Your task to perform on an android device: turn off improve location accuracy Image 0: 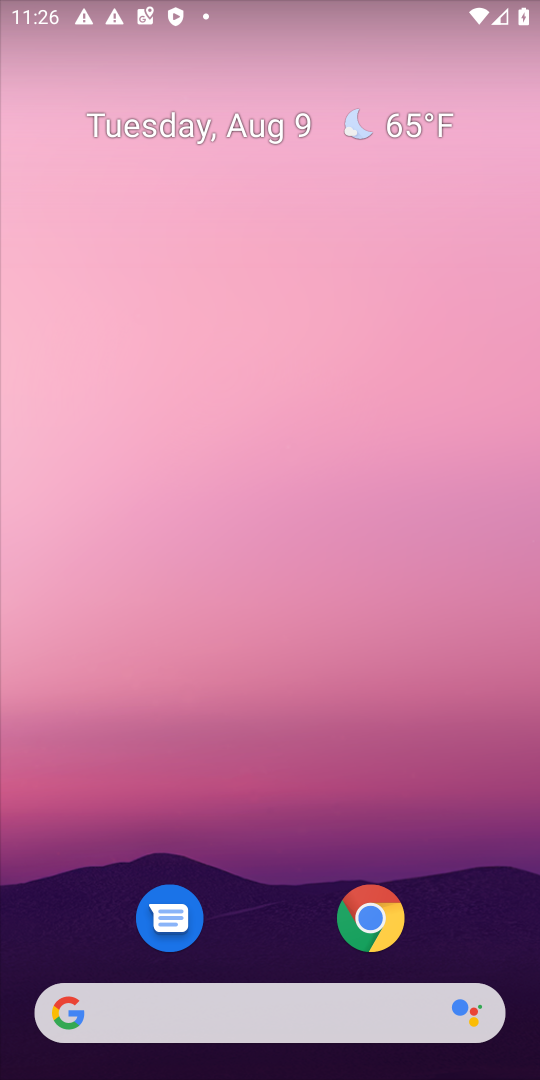
Step 0: drag from (248, 884) to (290, 110)
Your task to perform on an android device: turn off improve location accuracy Image 1: 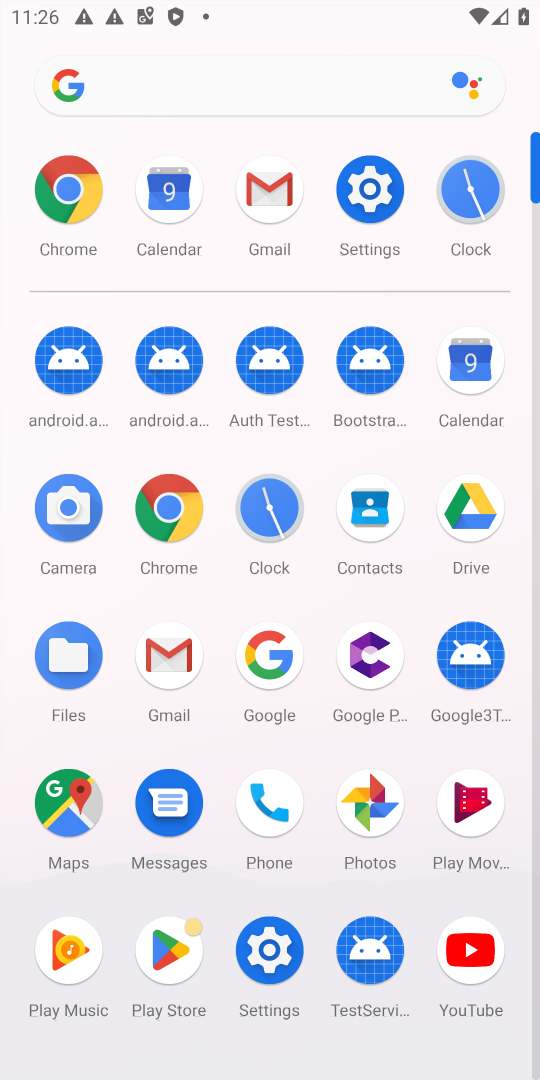
Step 1: click (278, 943)
Your task to perform on an android device: turn off improve location accuracy Image 2: 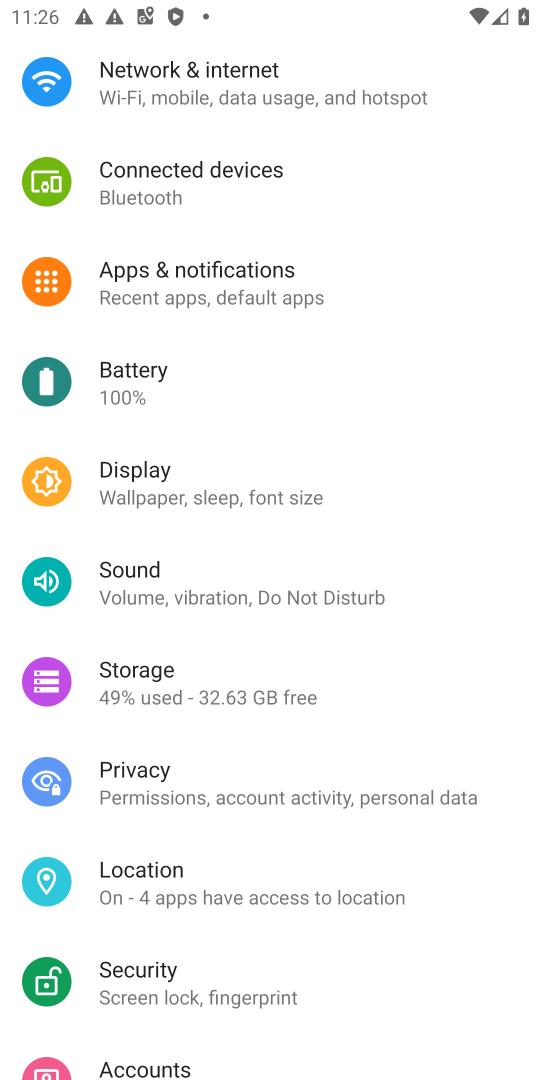
Step 2: click (191, 891)
Your task to perform on an android device: turn off improve location accuracy Image 3: 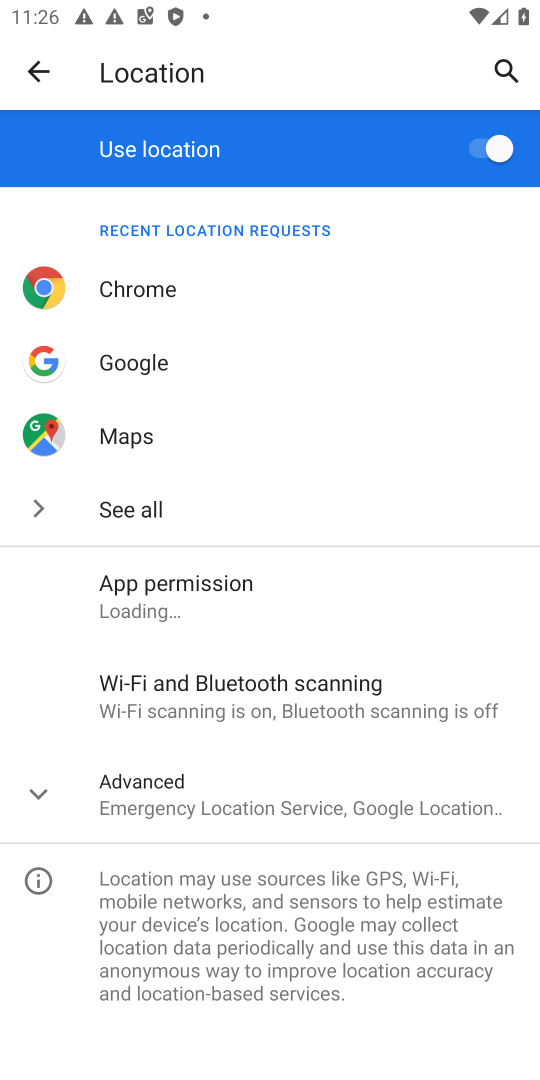
Step 3: click (188, 796)
Your task to perform on an android device: turn off improve location accuracy Image 4: 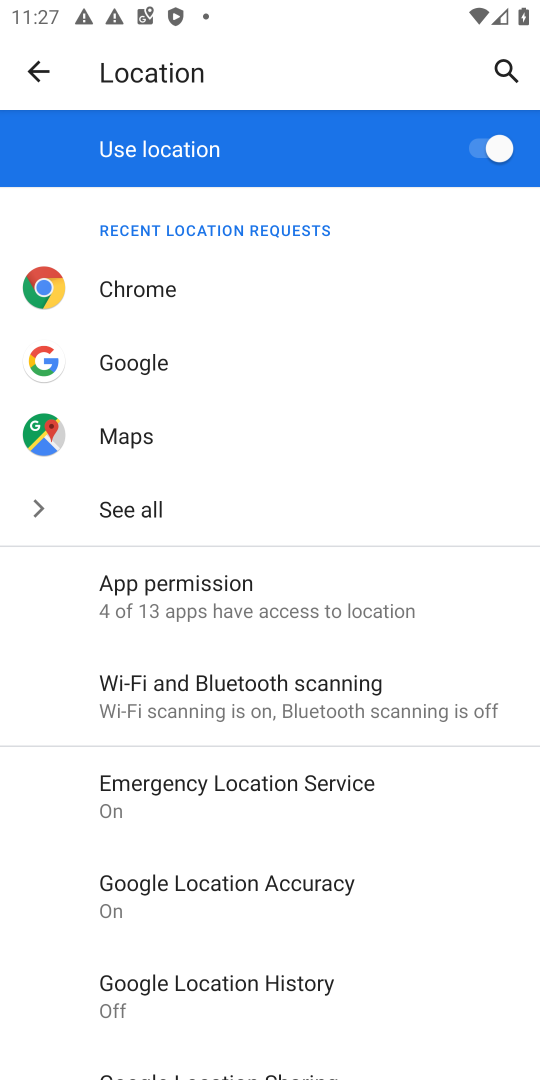
Step 4: click (304, 900)
Your task to perform on an android device: turn off improve location accuracy Image 5: 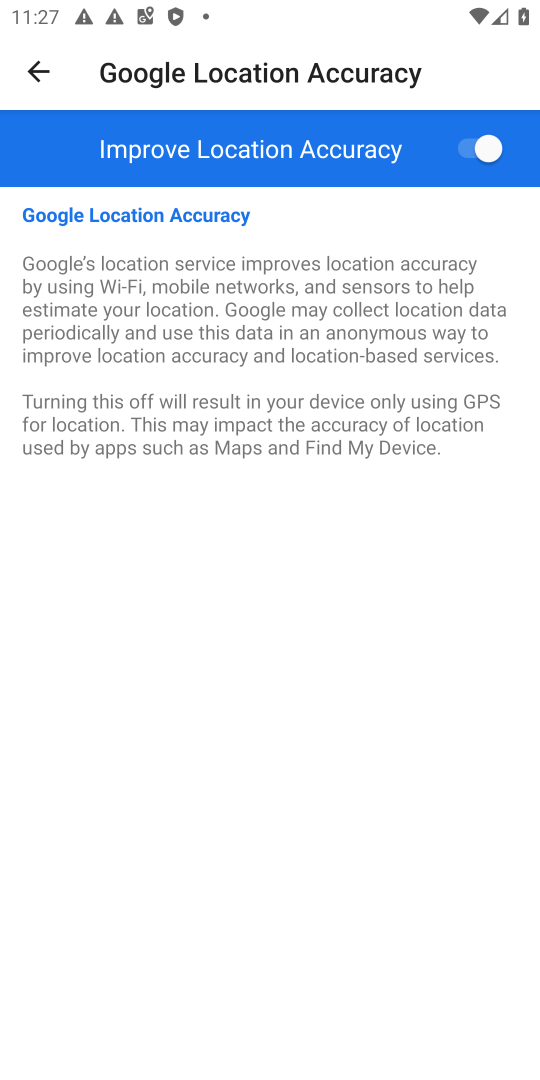
Step 5: click (462, 143)
Your task to perform on an android device: turn off improve location accuracy Image 6: 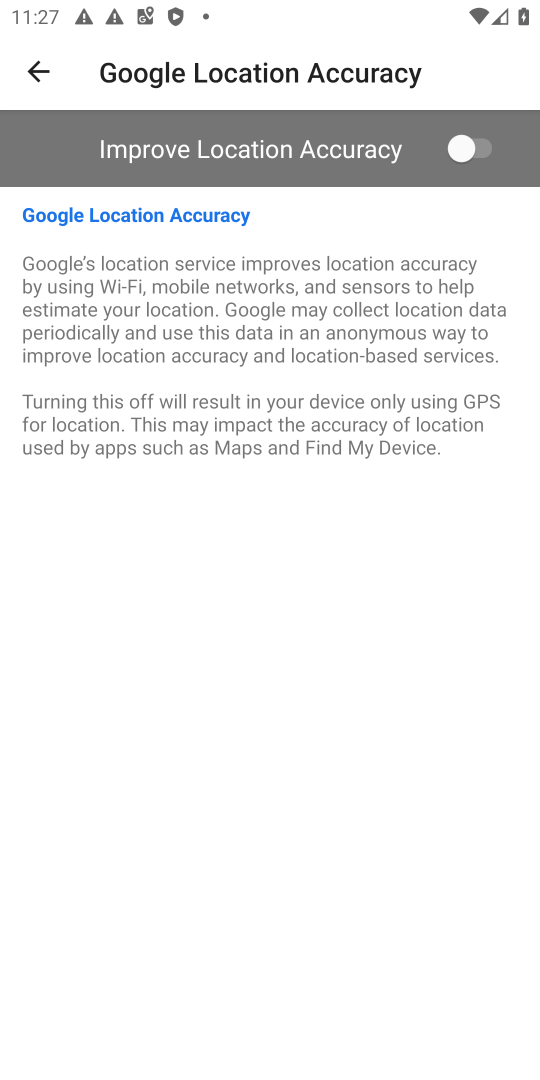
Step 6: task complete